Your task to perform on an android device: see sites visited before in the chrome app Image 0: 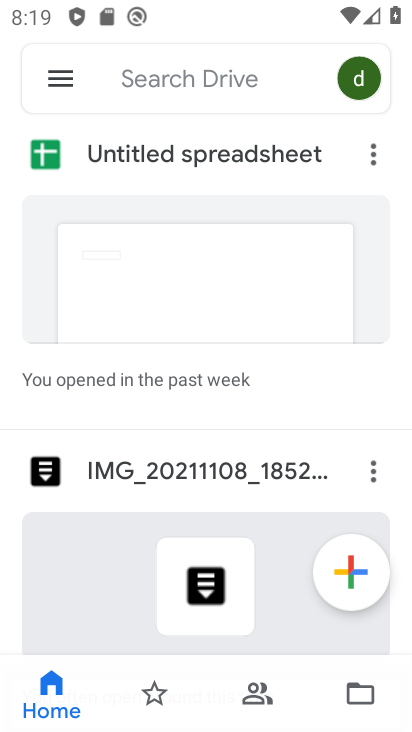
Step 0: press home button
Your task to perform on an android device: see sites visited before in the chrome app Image 1: 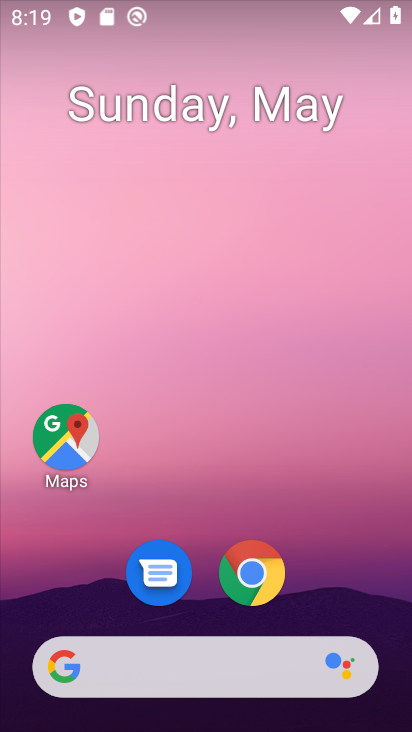
Step 1: click (265, 564)
Your task to perform on an android device: see sites visited before in the chrome app Image 2: 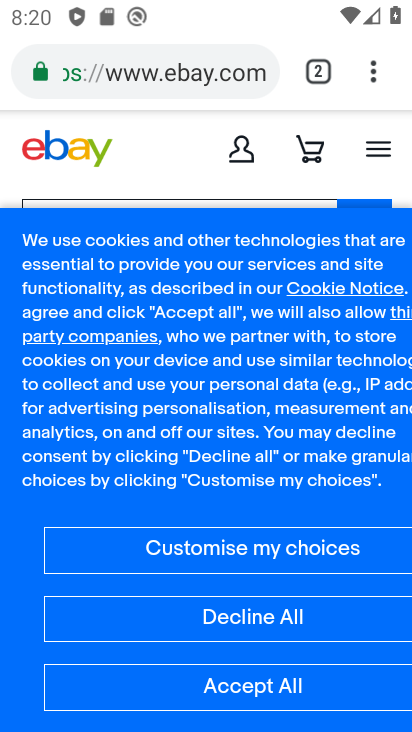
Step 2: click (379, 93)
Your task to perform on an android device: see sites visited before in the chrome app Image 3: 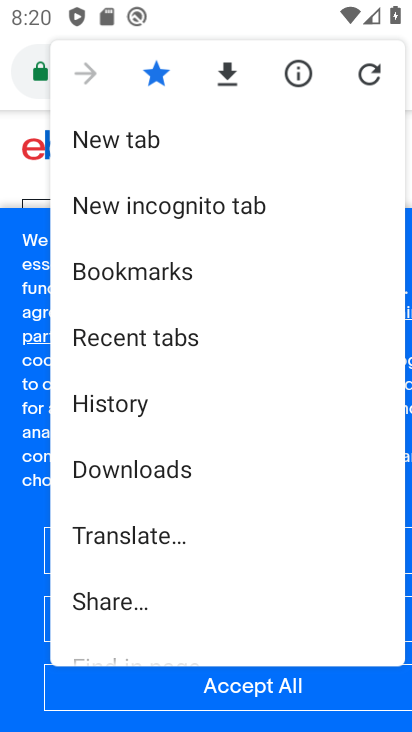
Step 3: click (153, 406)
Your task to perform on an android device: see sites visited before in the chrome app Image 4: 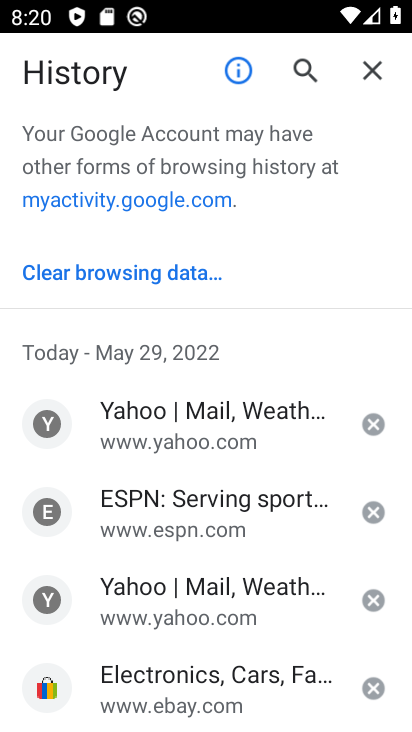
Step 4: task complete